Your task to perform on an android device: set the stopwatch Image 0: 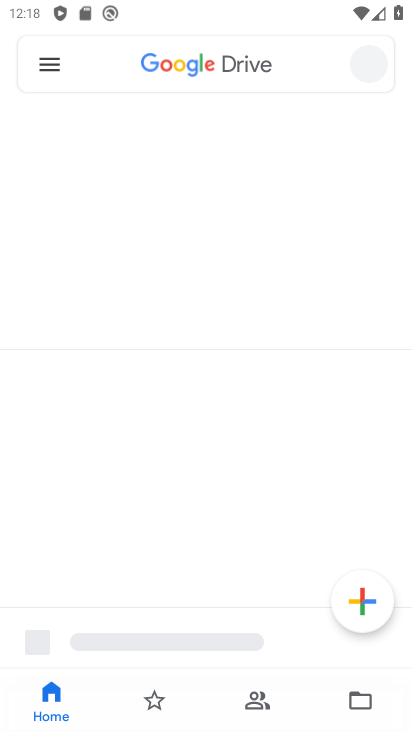
Step 0: press home button
Your task to perform on an android device: set the stopwatch Image 1: 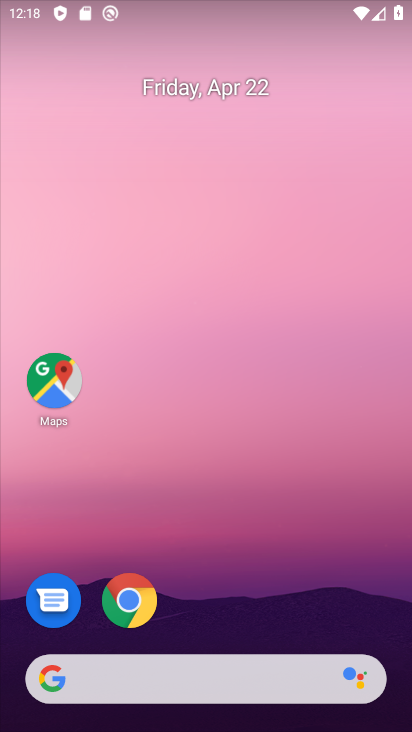
Step 1: drag from (200, 596) to (273, 146)
Your task to perform on an android device: set the stopwatch Image 2: 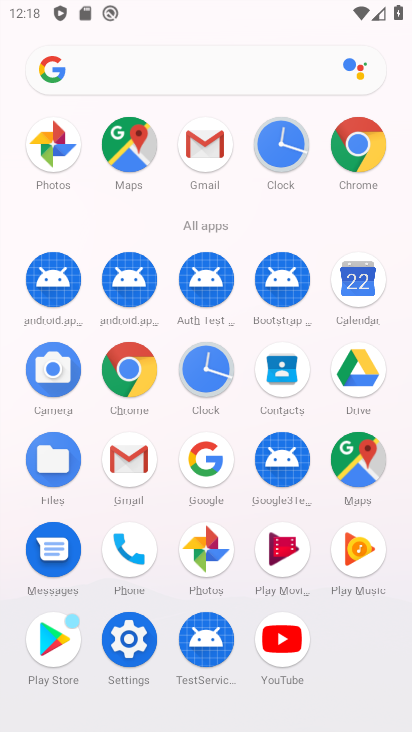
Step 2: click (199, 371)
Your task to perform on an android device: set the stopwatch Image 3: 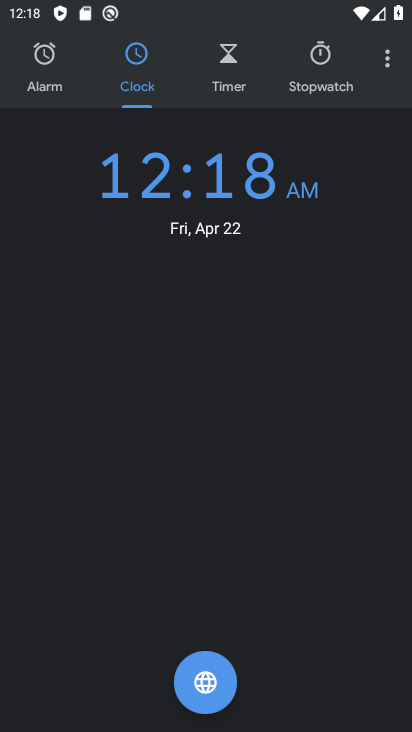
Step 3: click (329, 57)
Your task to perform on an android device: set the stopwatch Image 4: 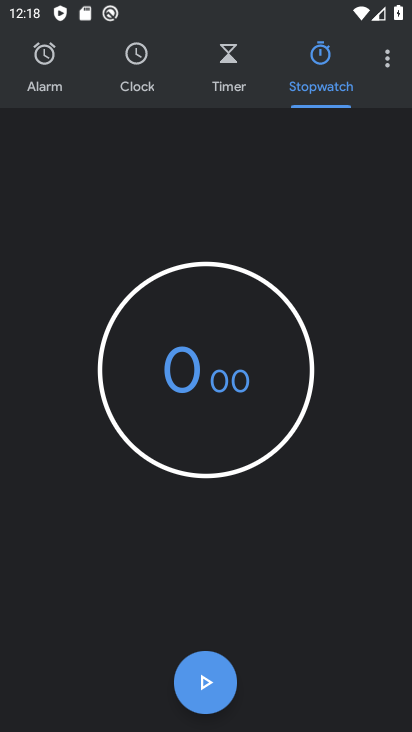
Step 4: click (213, 698)
Your task to perform on an android device: set the stopwatch Image 5: 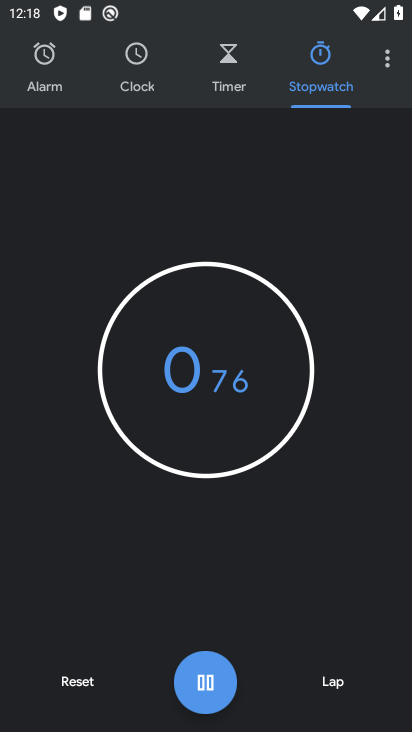
Step 5: task complete